Your task to perform on an android device: see sites visited before in the chrome app Image 0: 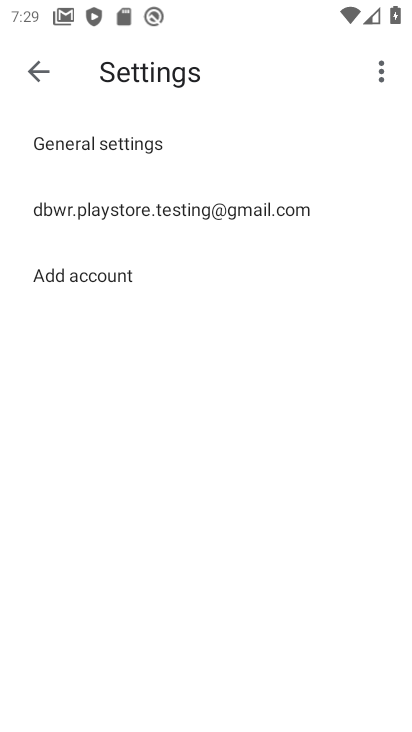
Step 0: press home button
Your task to perform on an android device: see sites visited before in the chrome app Image 1: 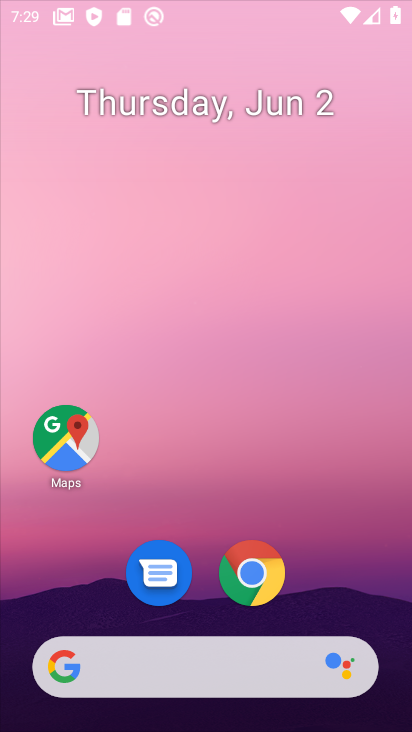
Step 1: drag from (374, 565) to (406, 58)
Your task to perform on an android device: see sites visited before in the chrome app Image 2: 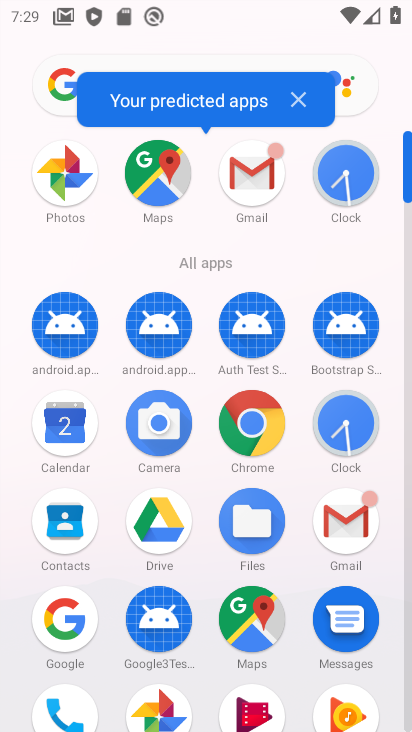
Step 2: click (260, 434)
Your task to perform on an android device: see sites visited before in the chrome app Image 3: 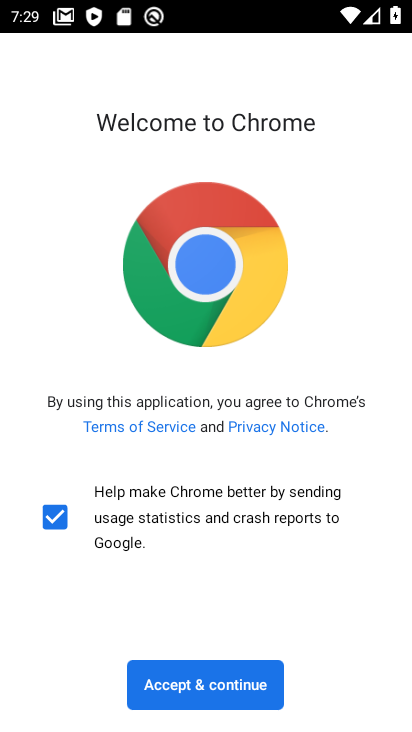
Step 3: click (173, 695)
Your task to perform on an android device: see sites visited before in the chrome app Image 4: 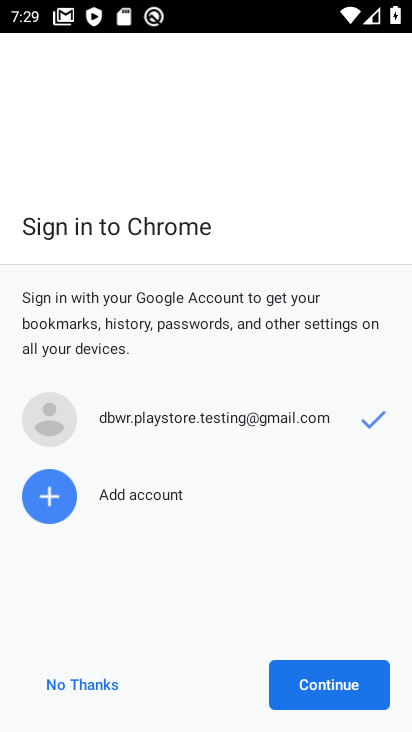
Step 4: click (94, 685)
Your task to perform on an android device: see sites visited before in the chrome app Image 5: 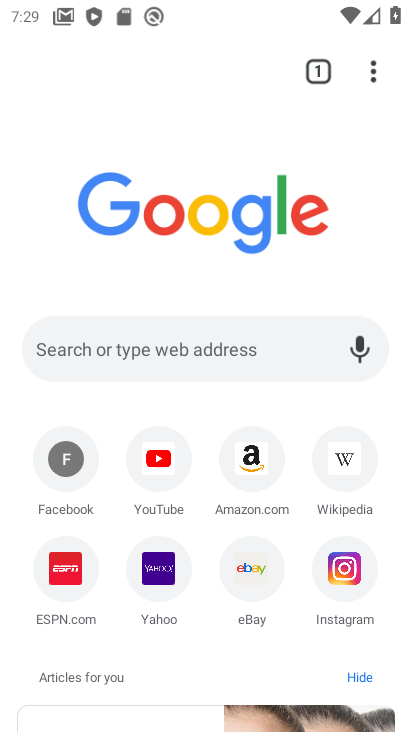
Step 5: drag from (215, 665) to (216, 414)
Your task to perform on an android device: see sites visited before in the chrome app Image 6: 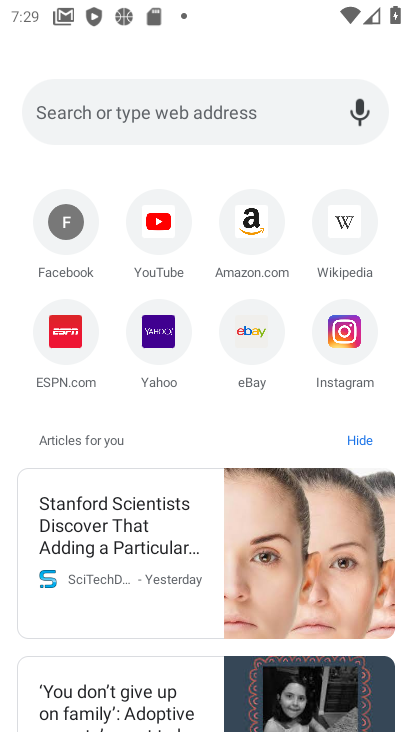
Step 6: drag from (265, 298) to (308, 592)
Your task to perform on an android device: see sites visited before in the chrome app Image 7: 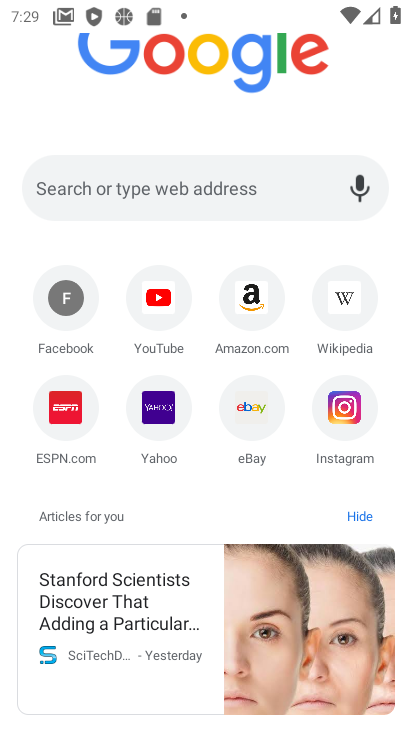
Step 7: drag from (330, 286) to (333, 557)
Your task to perform on an android device: see sites visited before in the chrome app Image 8: 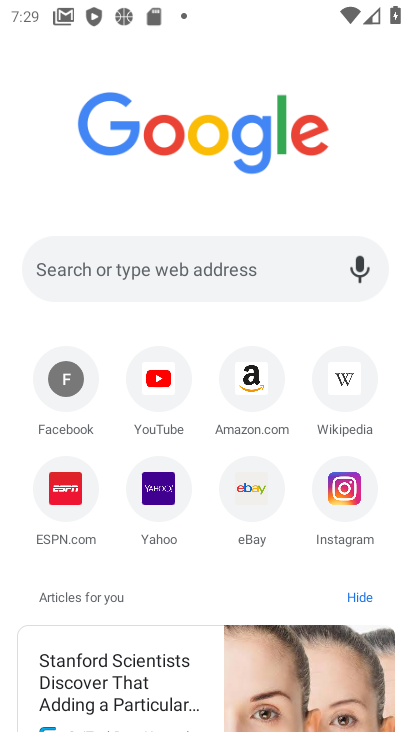
Step 8: drag from (339, 98) to (401, 386)
Your task to perform on an android device: see sites visited before in the chrome app Image 9: 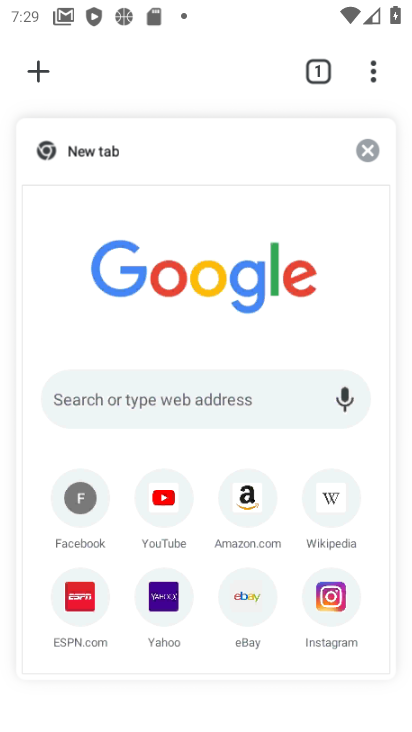
Step 9: drag from (370, 91) to (409, 244)
Your task to perform on an android device: see sites visited before in the chrome app Image 10: 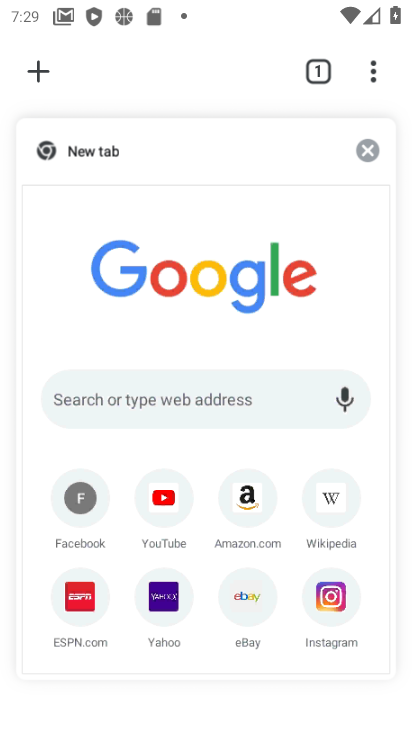
Step 10: click (60, 325)
Your task to perform on an android device: see sites visited before in the chrome app Image 11: 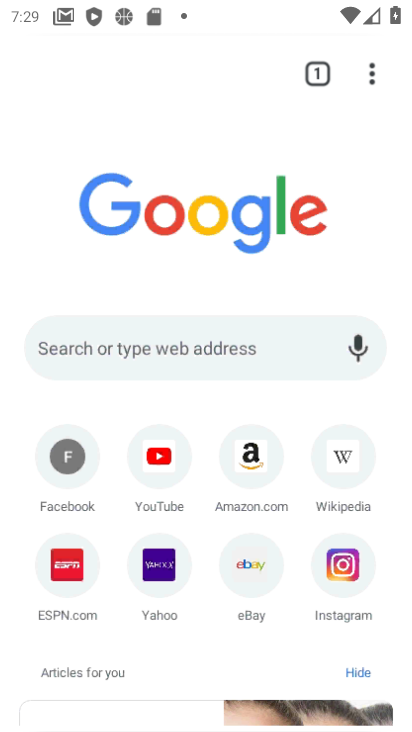
Step 11: drag from (176, 305) to (207, 43)
Your task to perform on an android device: see sites visited before in the chrome app Image 12: 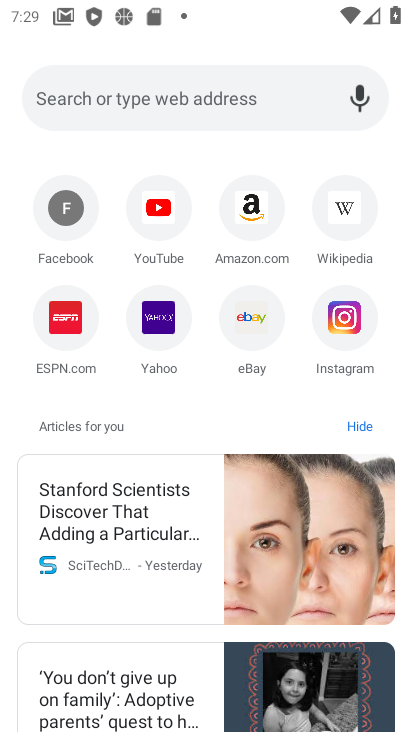
Step 12: drag from (401, 127) to (411, 282)
Your task to perform on an android device: see sites visited before in the chrome app Image 13: 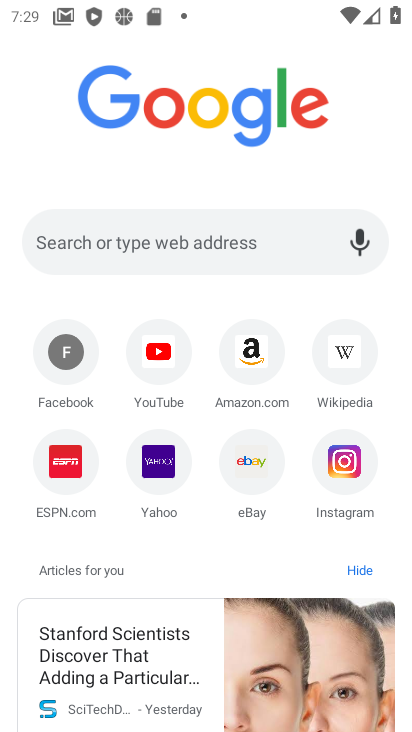
Step 13: drag from (399, 140) to (411, 226)
Your task to perform on an android device: see sites visited before in the chrome app Image 14: 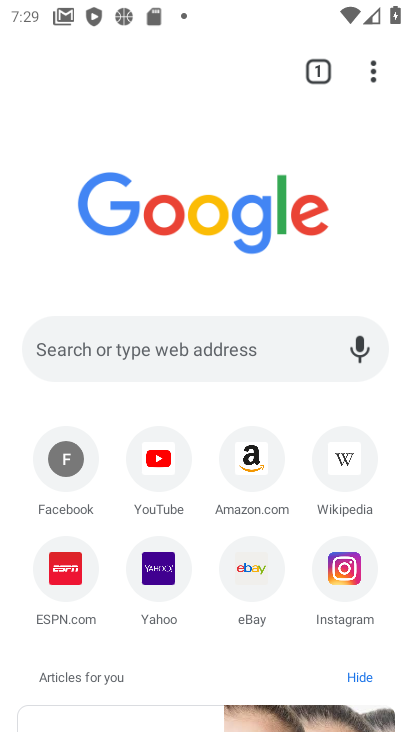
Step 14: click (369, 122)
Your task to perform on an android device: see sites visited before in the chrome app Image 15: 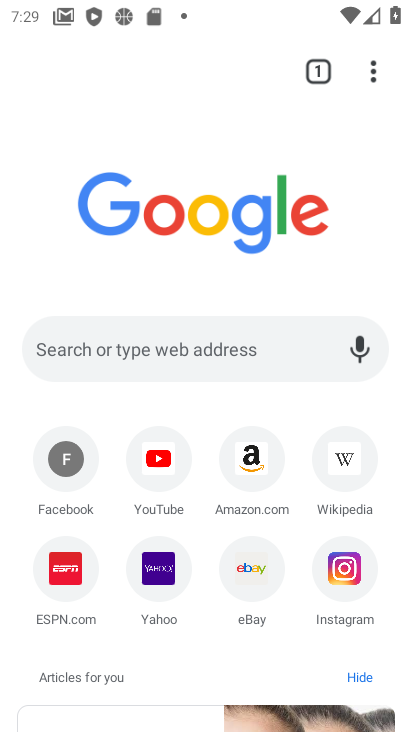
Step 15: drag from (383, 76) to (202, 347)
Your task to perform on an android device: see sites visited before in the chrome app Image 16: 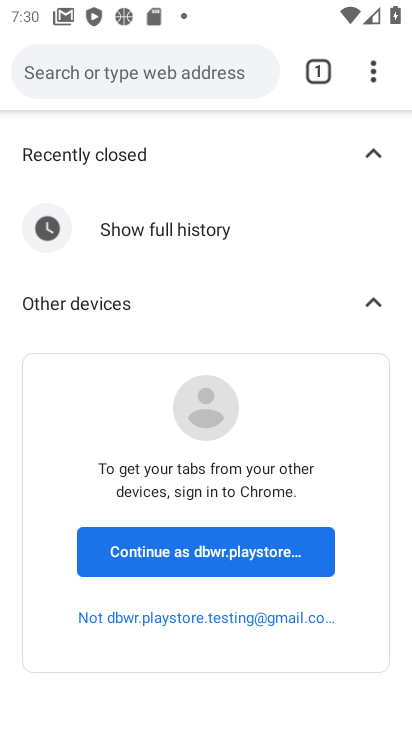
Step 16: click (217, 547)
Your task to perform on an android device: see sites visited before in the chrome app Image 17: 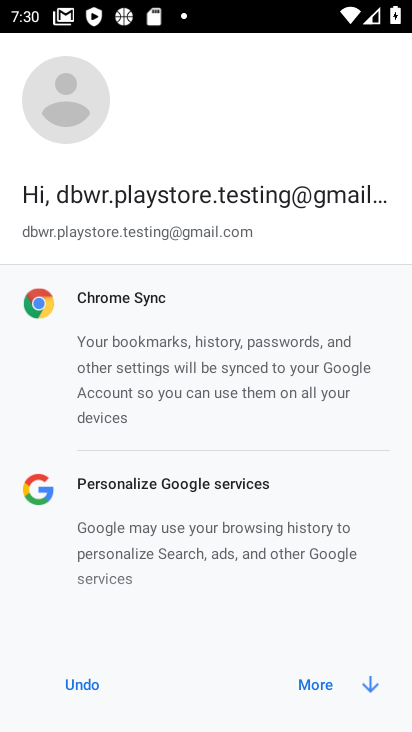
Step 17: click (308, 689)
Your task to perform on an android device: see sites visited before in the chrome app Image 18: 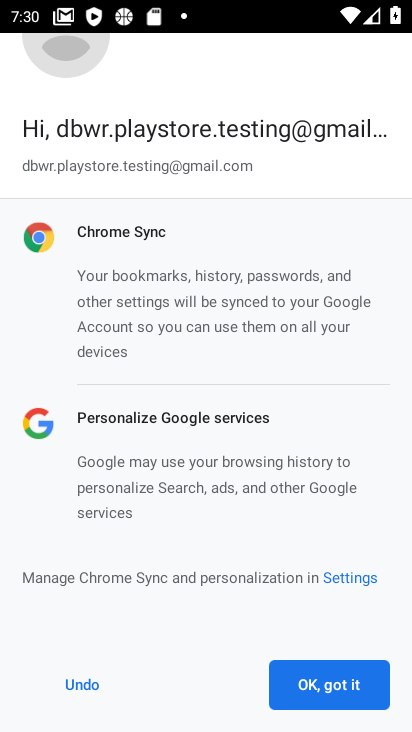
Step 18: click (308, 689)
Your task to perform on an android device: see sites visited before in the chrome app Image 19: 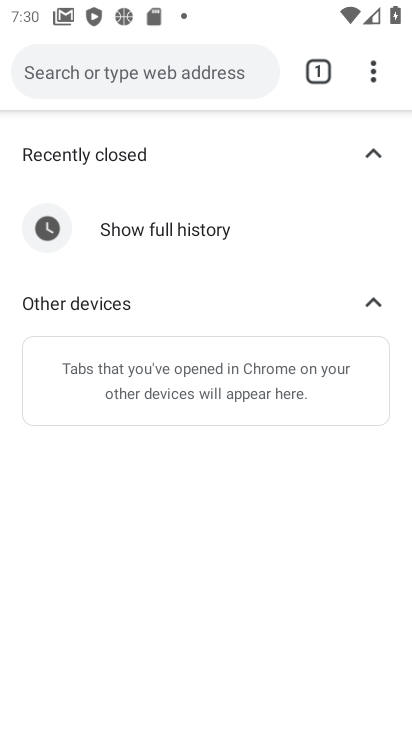
Step 19: task complete